Your task to perform on an android device: Open Maps and search for coffee Image 0: 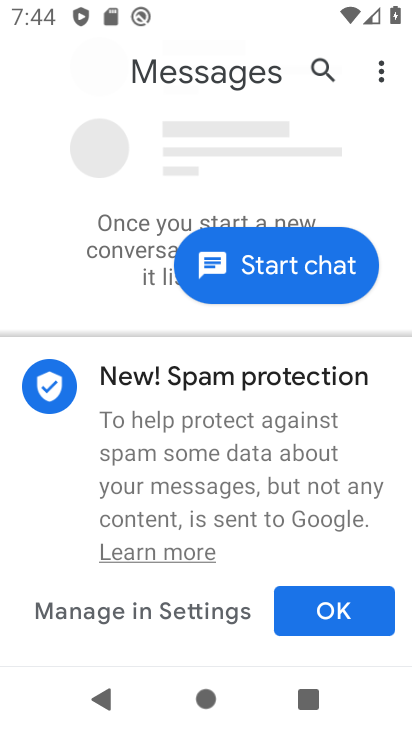
Step 0: press home button
Your task to perform on an android device: Open Maps and search for coffee Image 1: 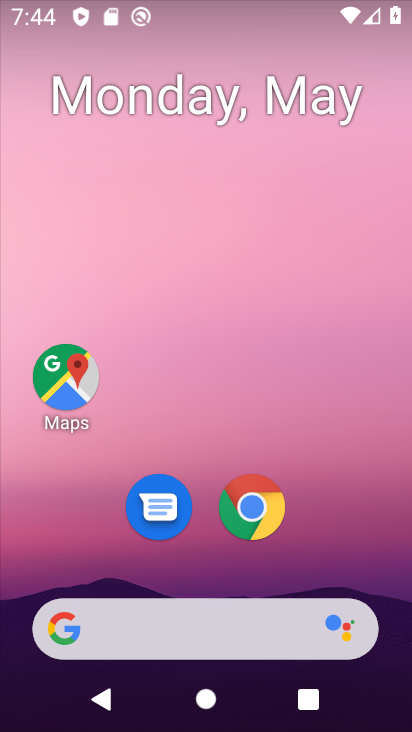
Step 1: click (67, 380)
Your task to perform on an android device: Open Maps and search for coffee Image 2: 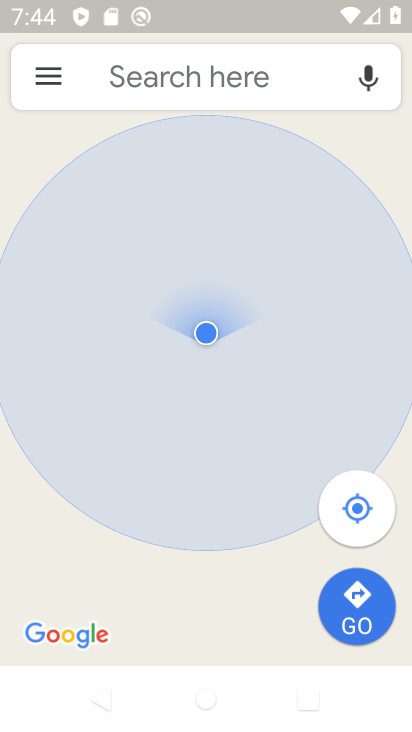
Step 2: click (132, 81)
Your task to perform on an android device: Open Maps and search for coffee Image 3: 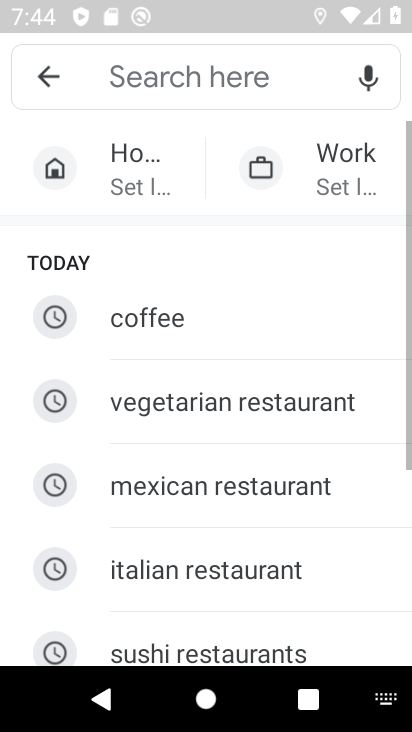
Step 3: click (174, 311)
Your task to perform on an android device: Open Maps and search for coffee Image 4: 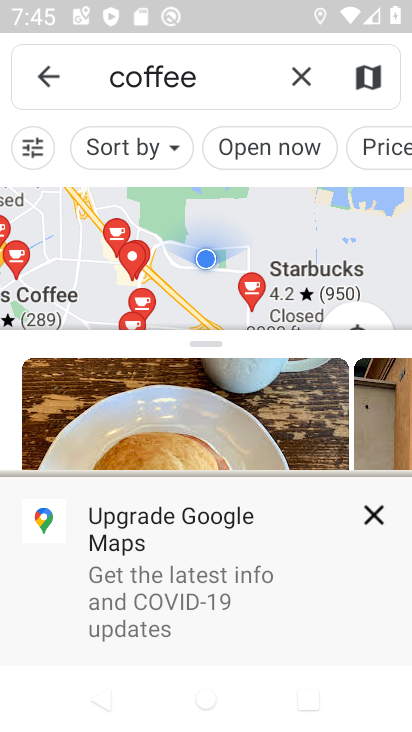
Step 4: click (373, 499)
Your task to perform on an android device: Open Maps and search for coffee Image 5: 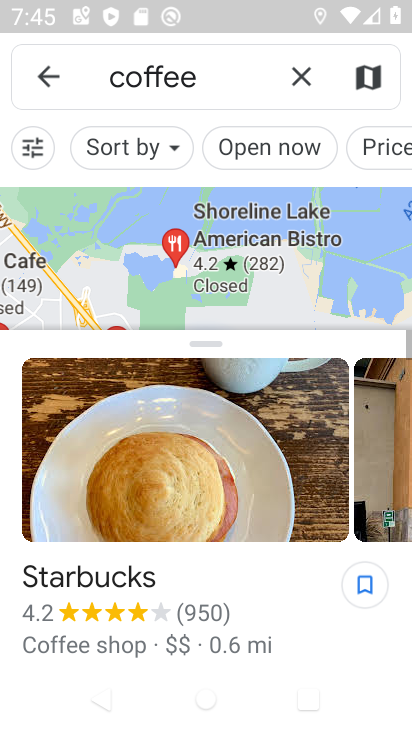
Step 5: task complete